Your task to perform on an android device: Do I have any events today? Image 0: 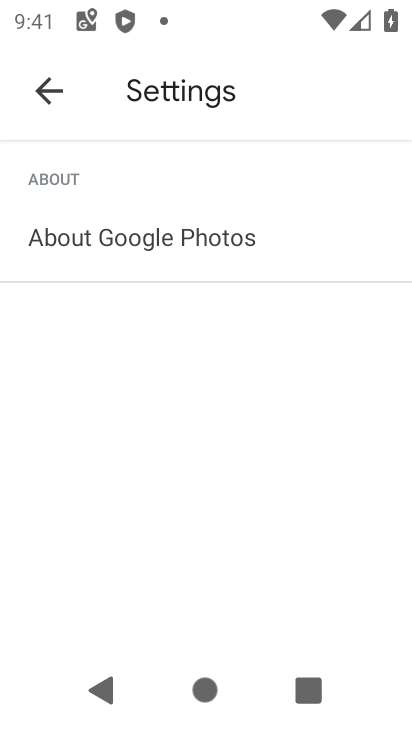
Step 0: press home button
Your task to perform on an android device: Do I have any events today? Image 1: 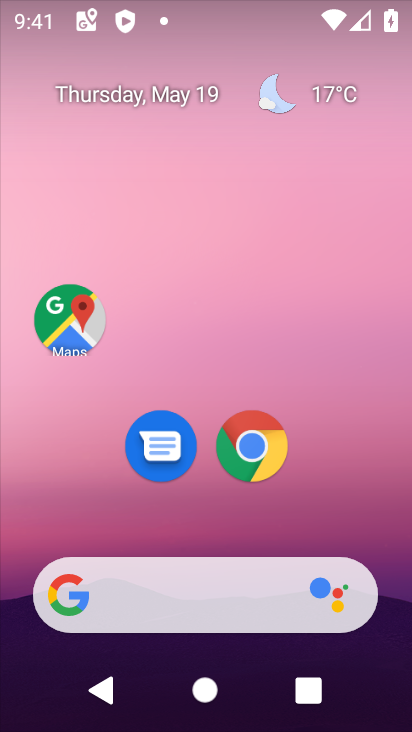
Step 1: drag from (218, 384) to (244, 0)
Your task to perform on an android device: Do I have any events today? Image 2: 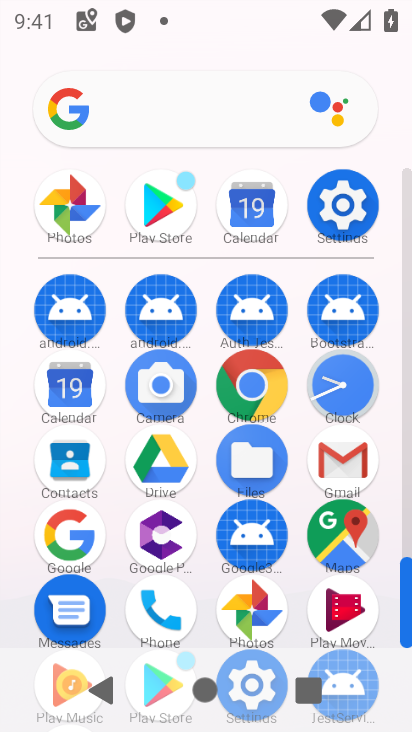
Step 2: click (261, 214)
Your task to perform on an android device: Do I have any events today? Image 3: 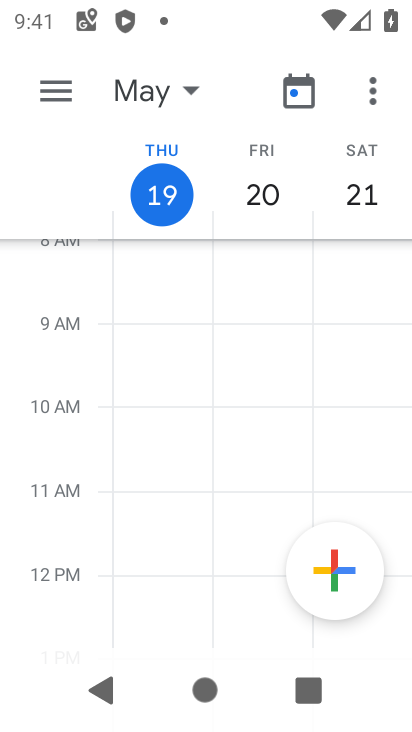
Step 3: click (60, 99)
Your task to perform on an android device: Do I have any events today? Image 4: 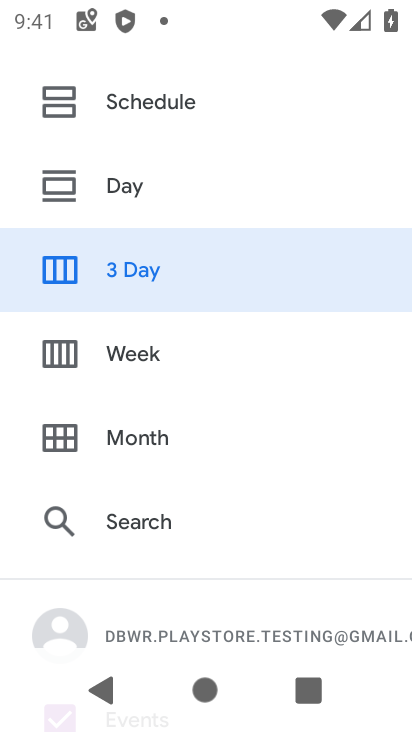
Step 4: click (120, 184)
Your task to perform on an android device: Do I have any events today? Image 5: 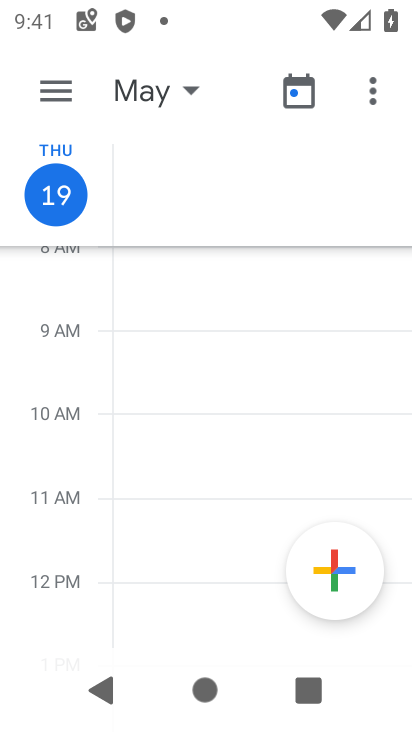
Step 5: task complete